Your task to perform on an android device: all mails in gmail Image 0: 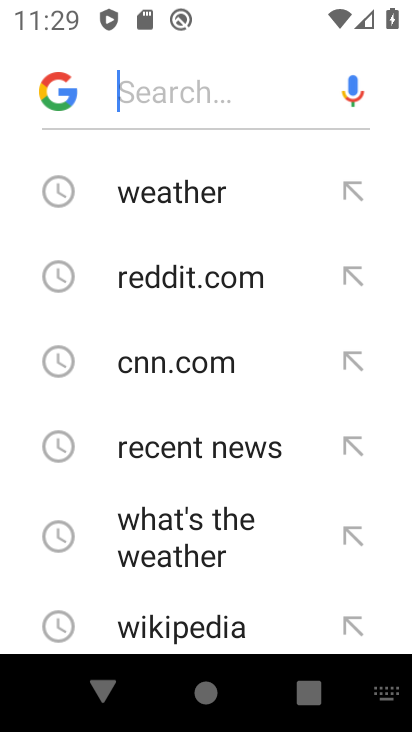
Step 0: press home button
Your task to perform on an android device: all mails in gmail Image 1: 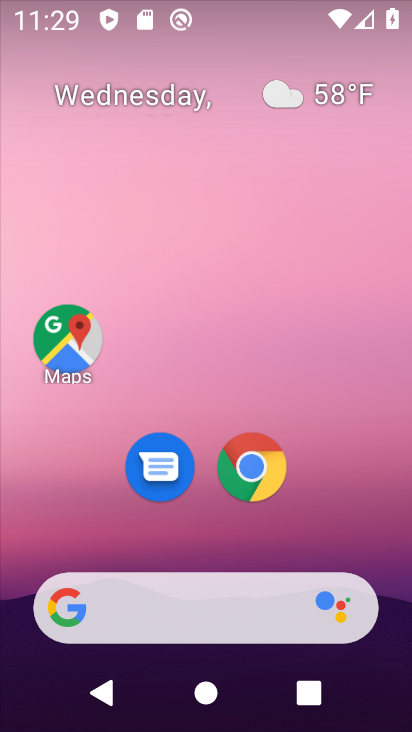
Step 1: drag from (389, 482) to (396, 112)
Your task to perform on an android device: all mails in gmail Image 2: 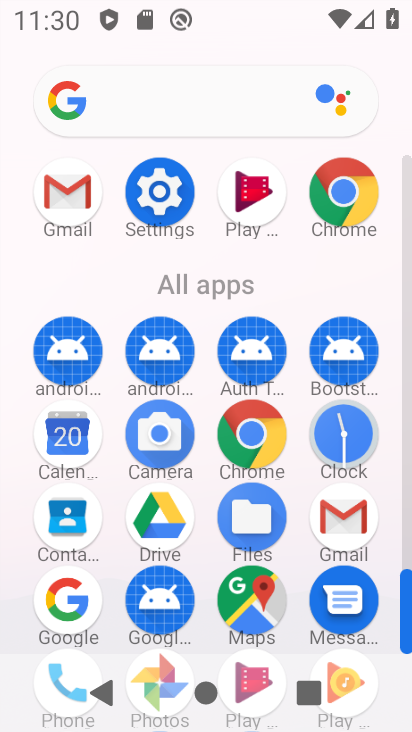
Step 2: click (327, 512)
Your task to perform on an android device: all mails in gmail Image 3: 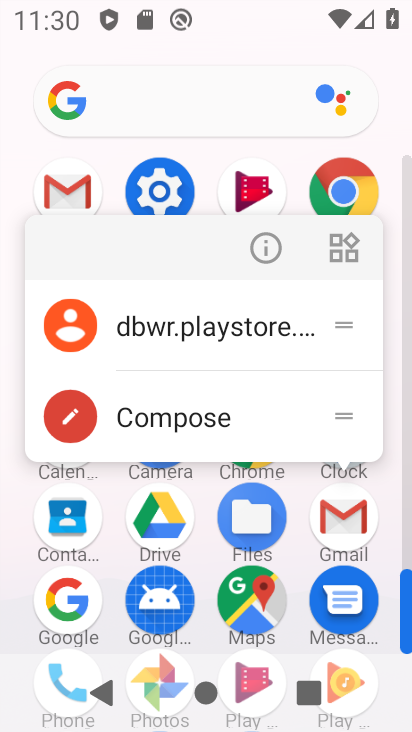
Step 3: click (333, 537)
Your task to perform on an android device: all mails in gmail Image 4: 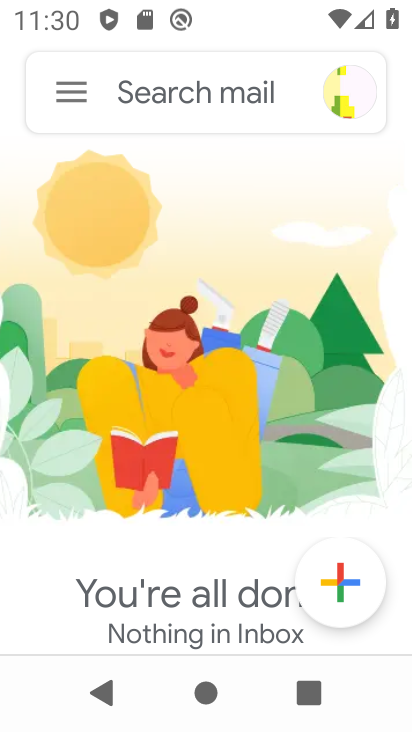
Step 4: click (69, 89)
Your task to perform on an android device: all mails in gmail Image 5: 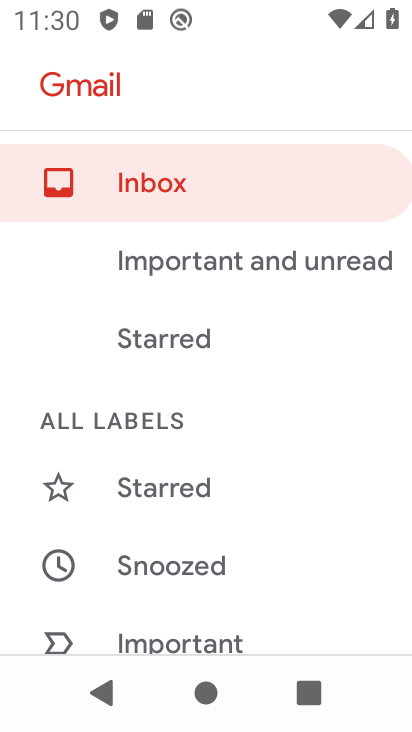
Step 5: drag from (160, 586) to (133, 161)
Your task to perform on an android device: all mails in gmail Image 6: 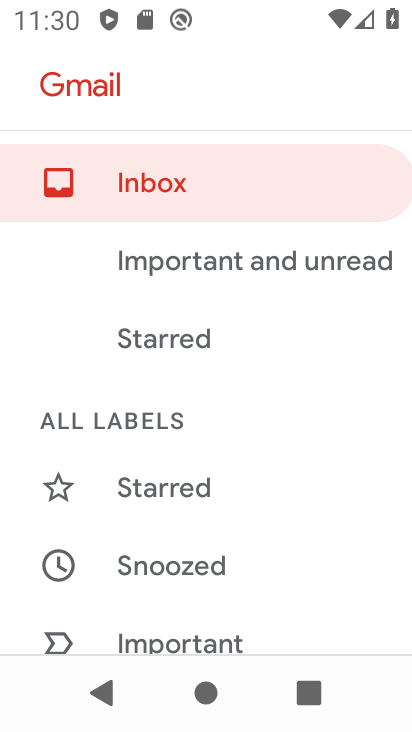
Step 6: drag from (100, 603) to (187, 208)
Your task to perform on an android device: all mails in gmail Image 7: 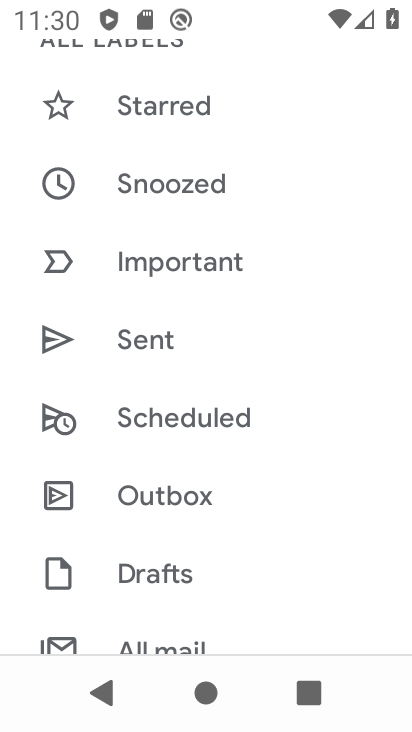
Step 7: drag from (199, 636) to (168, 317)
Your task to perform on an android device: all mails in gmail Image 8: 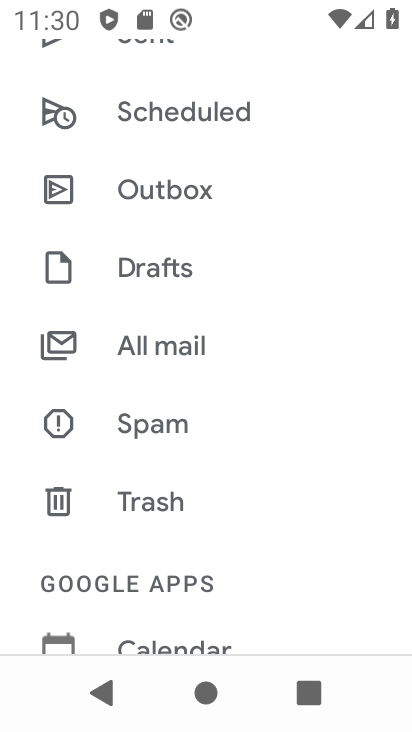
Step 8: click (164, 367)
Your task to perform on an android device: all mails in gmail Image 9: 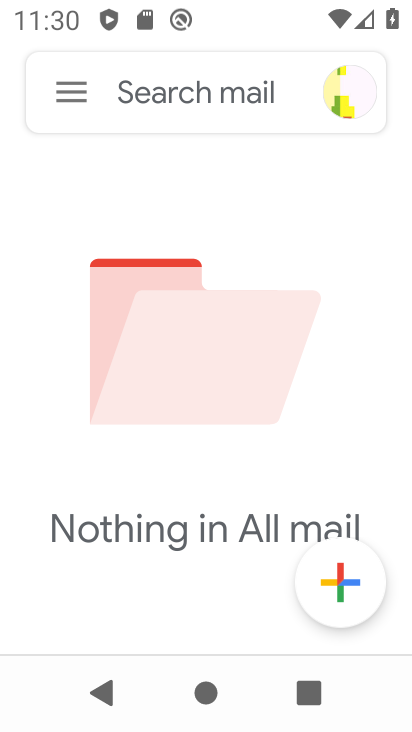
Step 9: task complete